Your task to perform on an android device: turn on data saver in the chrome app Image 0: 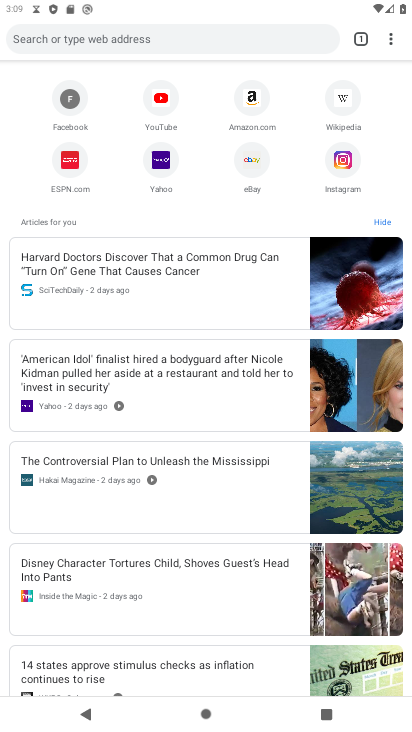
Step 0: press home button
Your task to perform on an android device: turn on data saver in the chrome app Image 1: 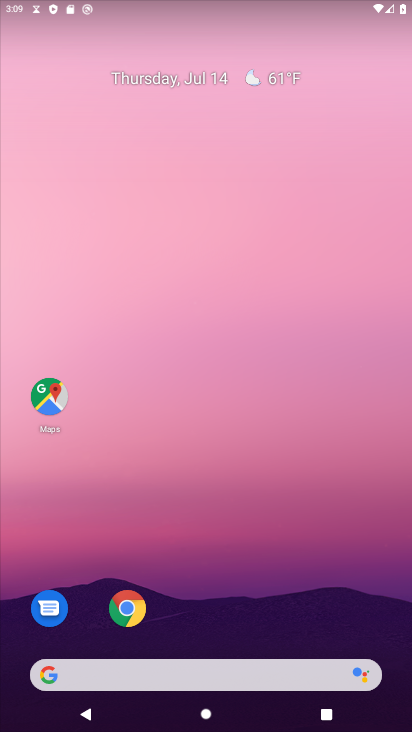
Step 1: click (120, 621)
Your task to perform on an android device: turn on data saver in the chrome app Image 2: 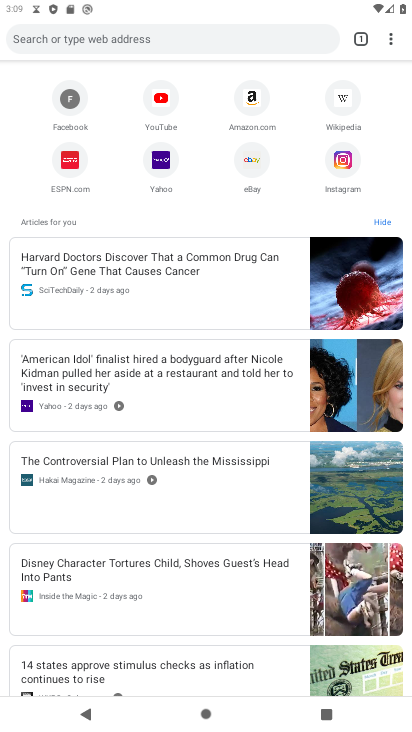
Step 2: drag from (393, 37) to (250, 332)
Your task to perform on an android device: turn on data saver in the chrome app Image 3: 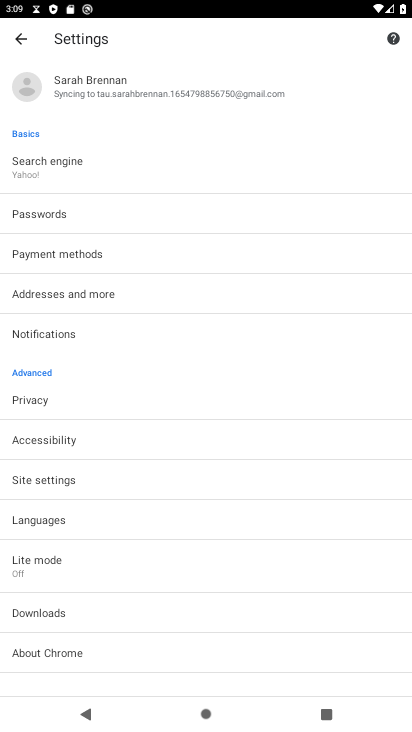
Step 3: click (41, 562)
Your task to perform on an android device: turn on data saver in the chrome app Image 4: 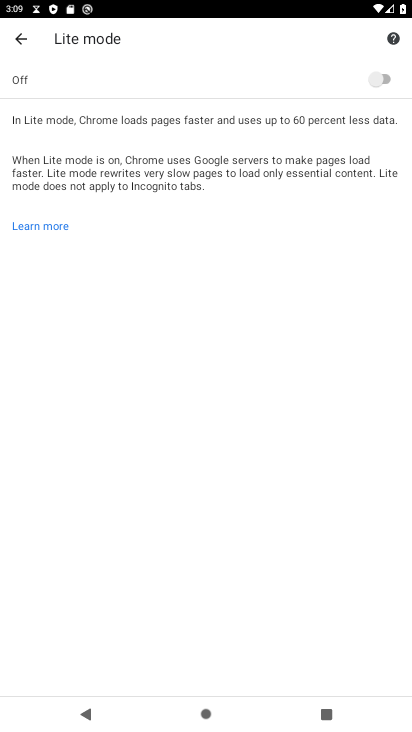
Step 4: click (381, 74)
Your task to perform on an android device: turn on data saver in the chrome app Image 5: 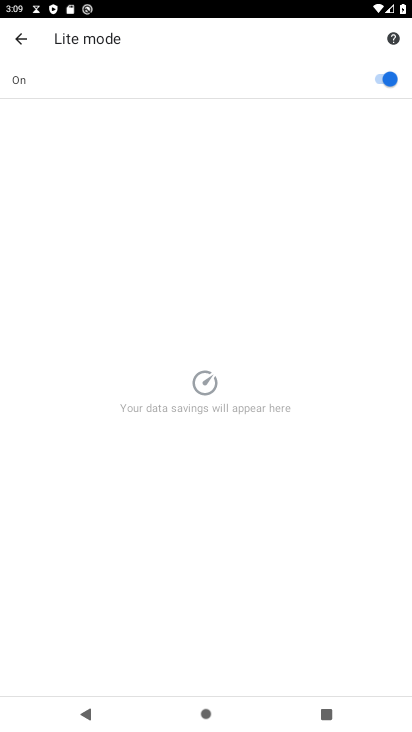
Step 5: task complete